Your task to perform on an android device: toggle improve location accuracy Image 0: 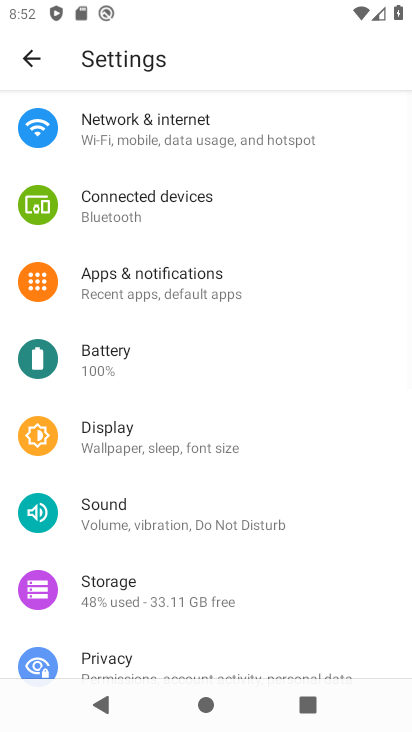
Step 0: press home button
Your task to perform on an android device: toggle improve location accuracy Image 1: 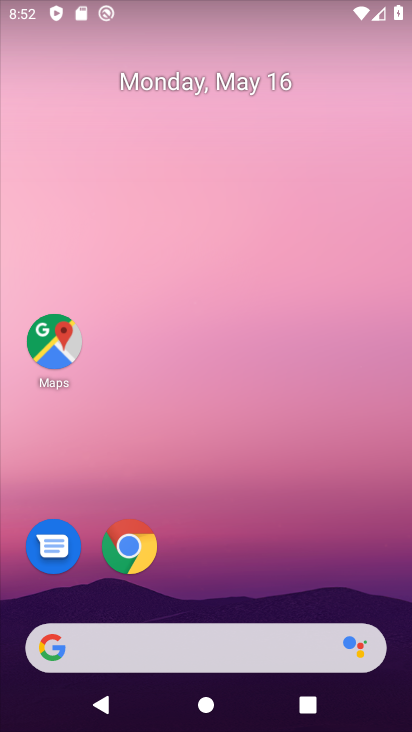
Step 1: drag from (329, 582) to (386, 43)
Your task to perform on an android device: toggle improve location accuracy Image 2: 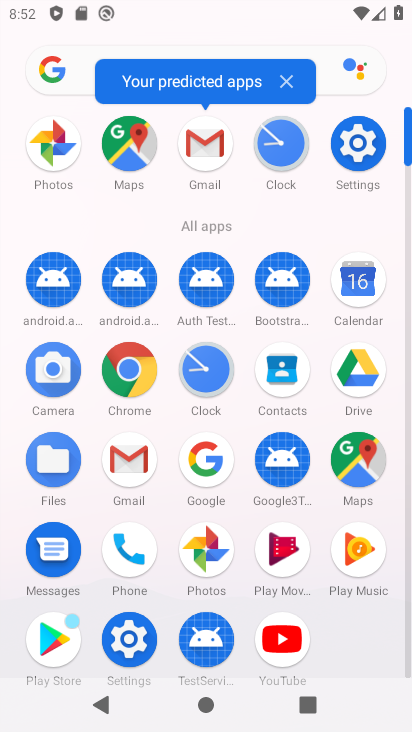
Step 2: click (366, 154)
Your task to perform on an android device: toggle improve location accuracy Image 3: 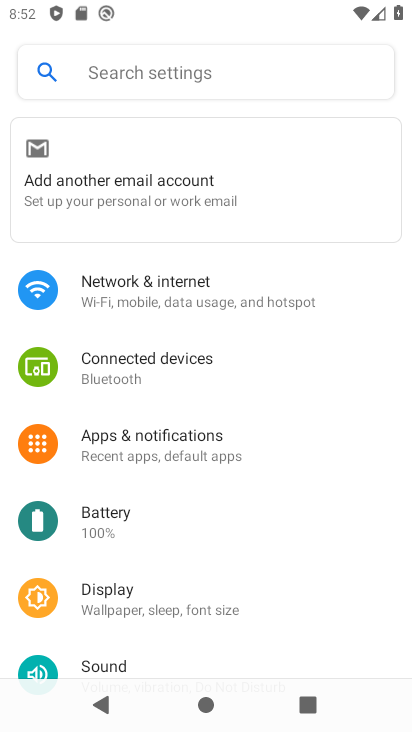
Step 3: drag from (257, 611) to (223, 242)
Your task to perform on an android device: toggle improve location accuracy Image 4: 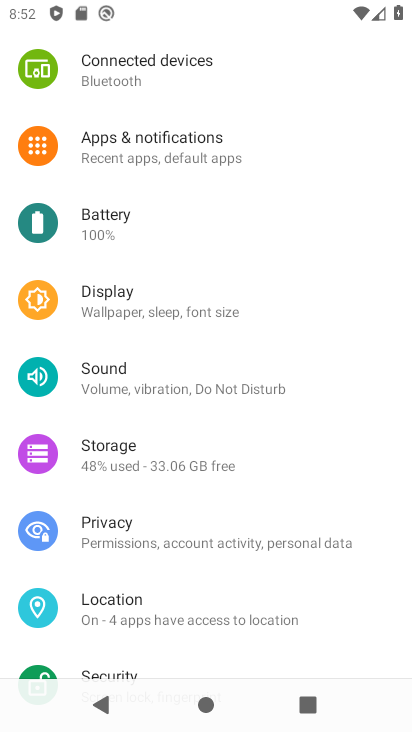
Step 4: click (209, 605)
Your task to perform on an android device: toggle improve location accuracy Image 5: 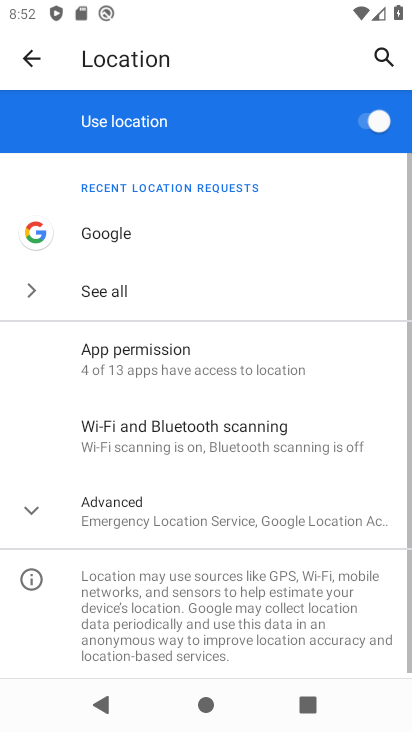
Step 5: click (164, 506)
Your task to perform on an android device: toggle improve location accuracy Image 6: 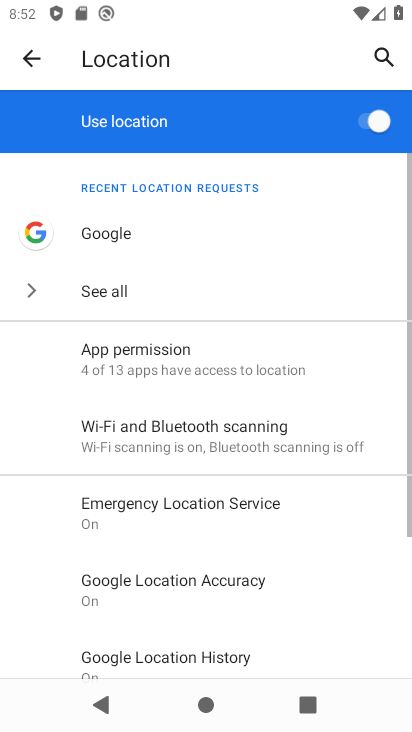
Step 6: drag from (190, 610) to (212, 261)
Your task to perform on an android device: toggle improve location accuracy Image 7: 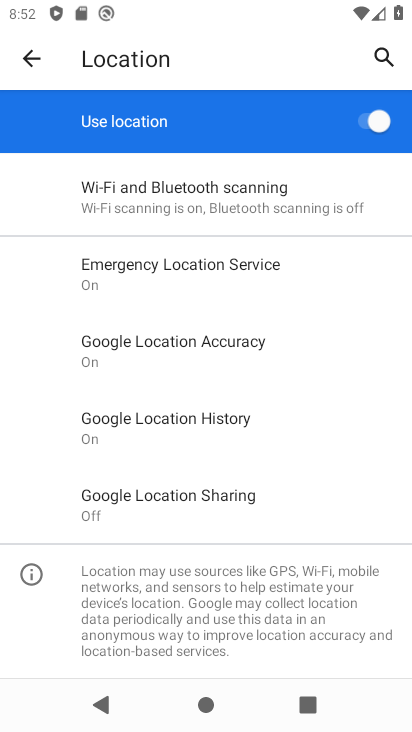
Step 7: click (223, 350)
Your task to perform on an android device: toggle improve location accuracy Image 8: 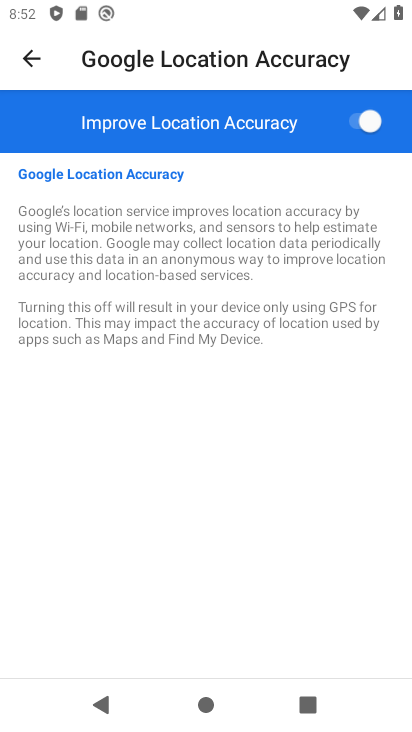
Step 8: click (364, 124)
Your task to perform on an android device: toggle improve location accuracy Image 9: 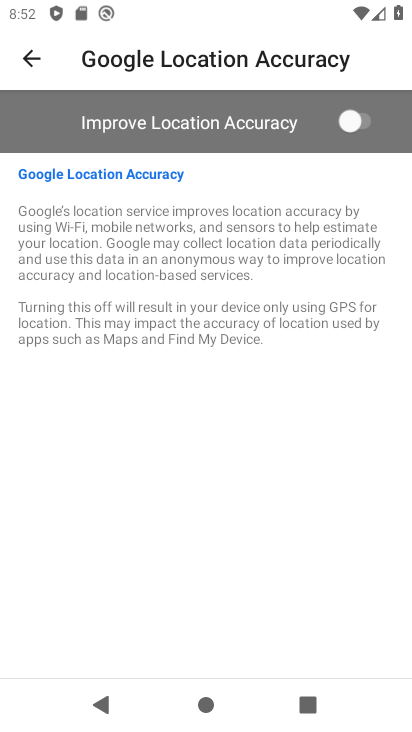
Step 9: task complete